Your task to perform on an android device: Do I have any events this weekend? Image 0: 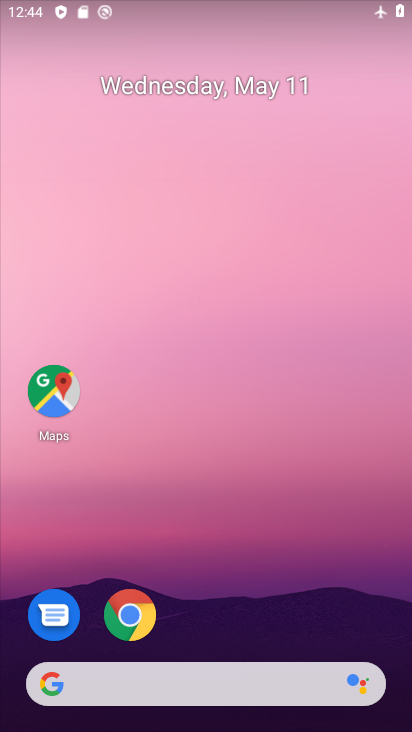
Step 0: drag from (373, 623) to (362, 135)
Your task to perform on an android device: Do I have any events this weekend? Image 1: 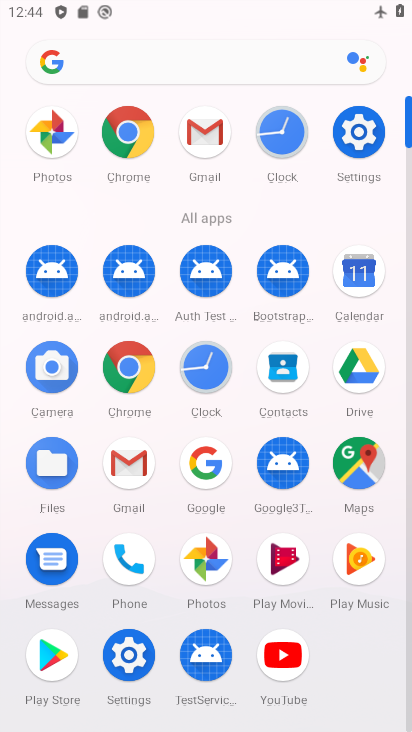
Step 1: click (386, 278)
Your task to perform on an android device: Do I have any events this weekend? Image 2: 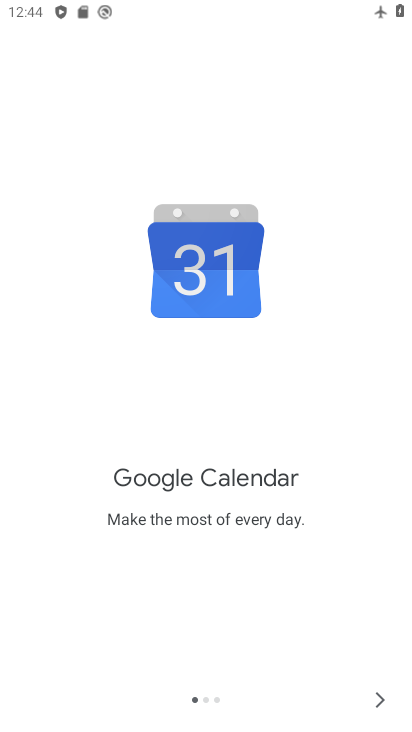
Step 2: click (374, 692)
Your task to perform on an android device: Do I have any events this weekend? Image 3: 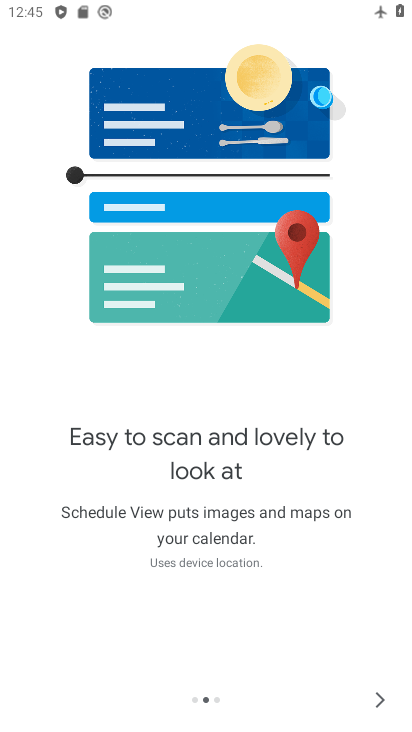
Step 3: click (374, 692)
Your task to perform on an android device: Do I have any events this weekend? Image 4: 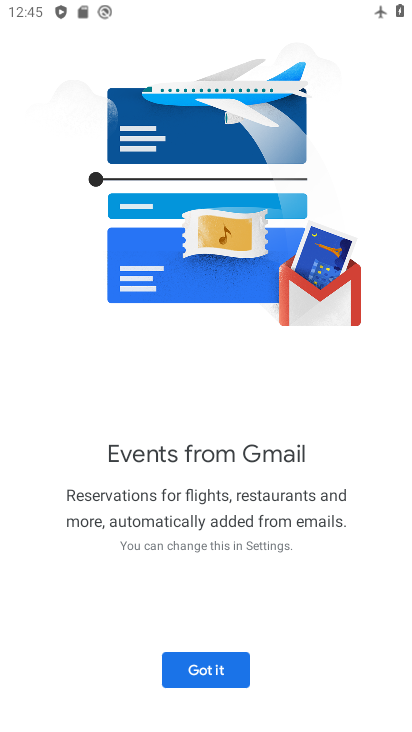
Step 4: click (374, 692)
Your task to perform on an android device: Do I have any events this weekend? Image 5: 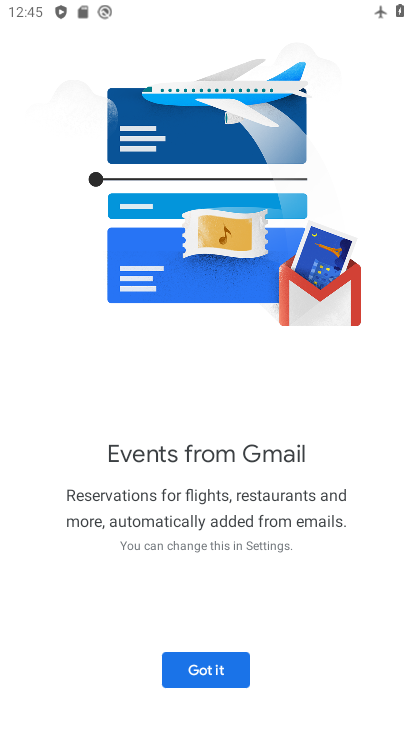
Step 5: click (184, 686)
Your task to perform on an android device: Do I have any events this weekend? Image 6: 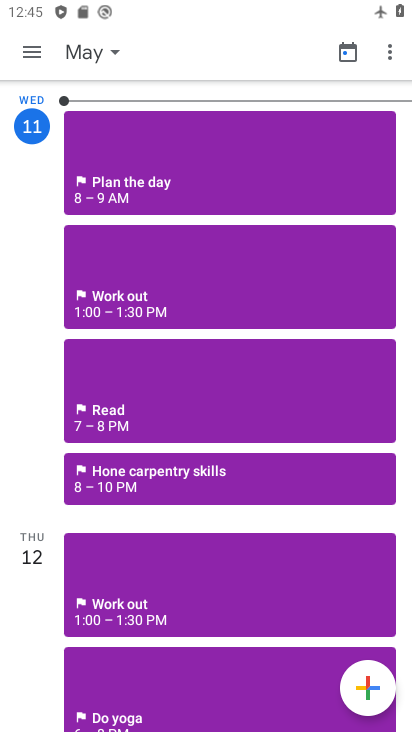
Step 6: click (20, 50)
Your task to perform on an android device: Do I have any events this weekend? Image 7: 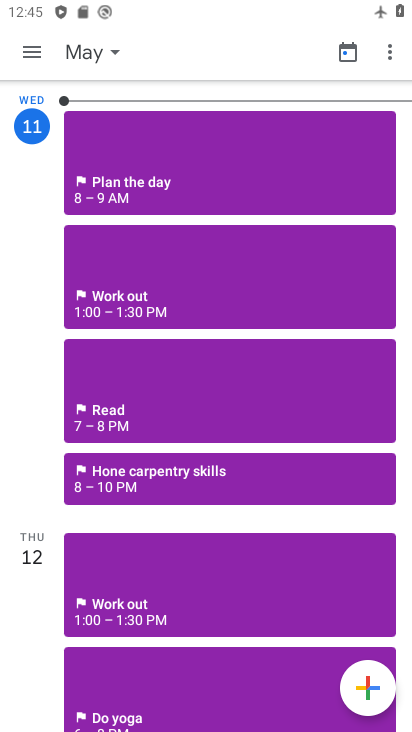
Step 7: click (28, 55)
Your task to perform on an android device: Do I have any events this weekend? Image 8: 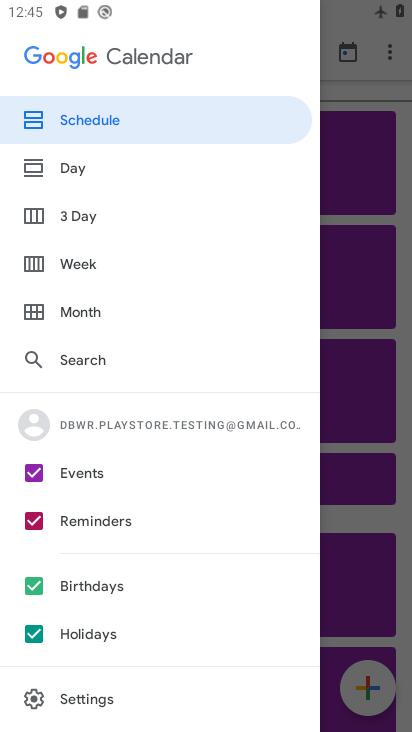
Step 8: click (82, 120)
Your task to perform on an android device: Do I have any events this weekend? Image 9: 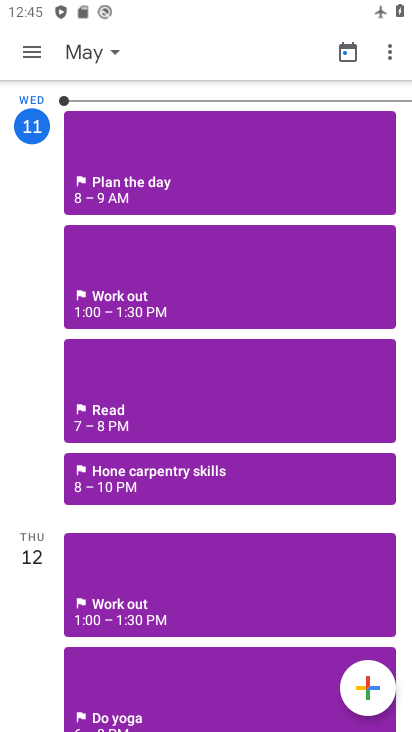
Step 9: drag from (43, 207) to (41, 591)
Your task to perform on an android device: Do I have any events this weekend? Image 10: 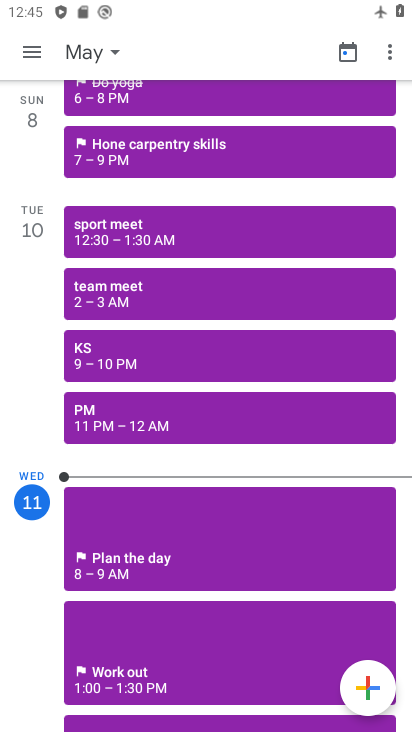
Step 10: drag from (39, 595) to (37, 246)
Your task to perform on an android device: Do I have any events this weekend? Image 11: 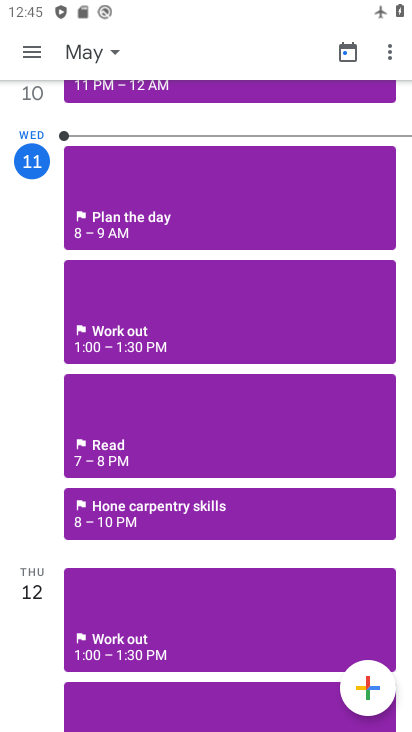
Step 11: click (75, 49)
Your task to perform on an android device: Do I have any events this weekend? Image 12: 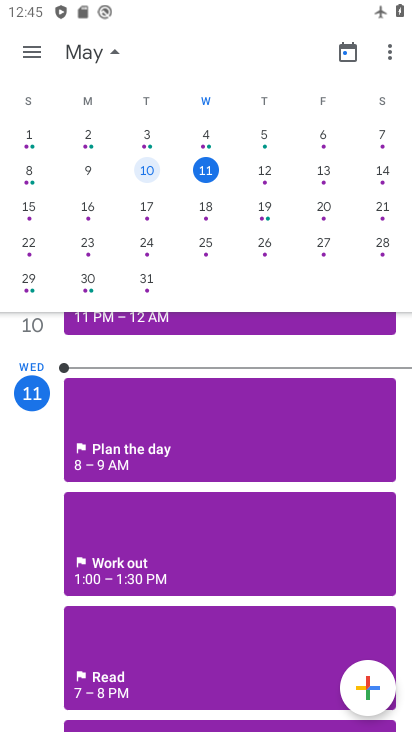
Step 12: click (28, 170)
Your task to perform on an android device: Do I have any events this weekend? Image 13: 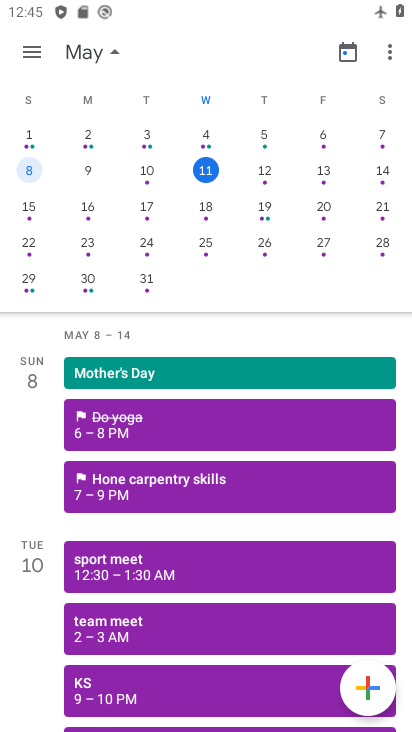
Step 13: task complete